Your task to perform on an android device: uninstall "Adobe Acrobat Reader: Edit PDF" Image 0: 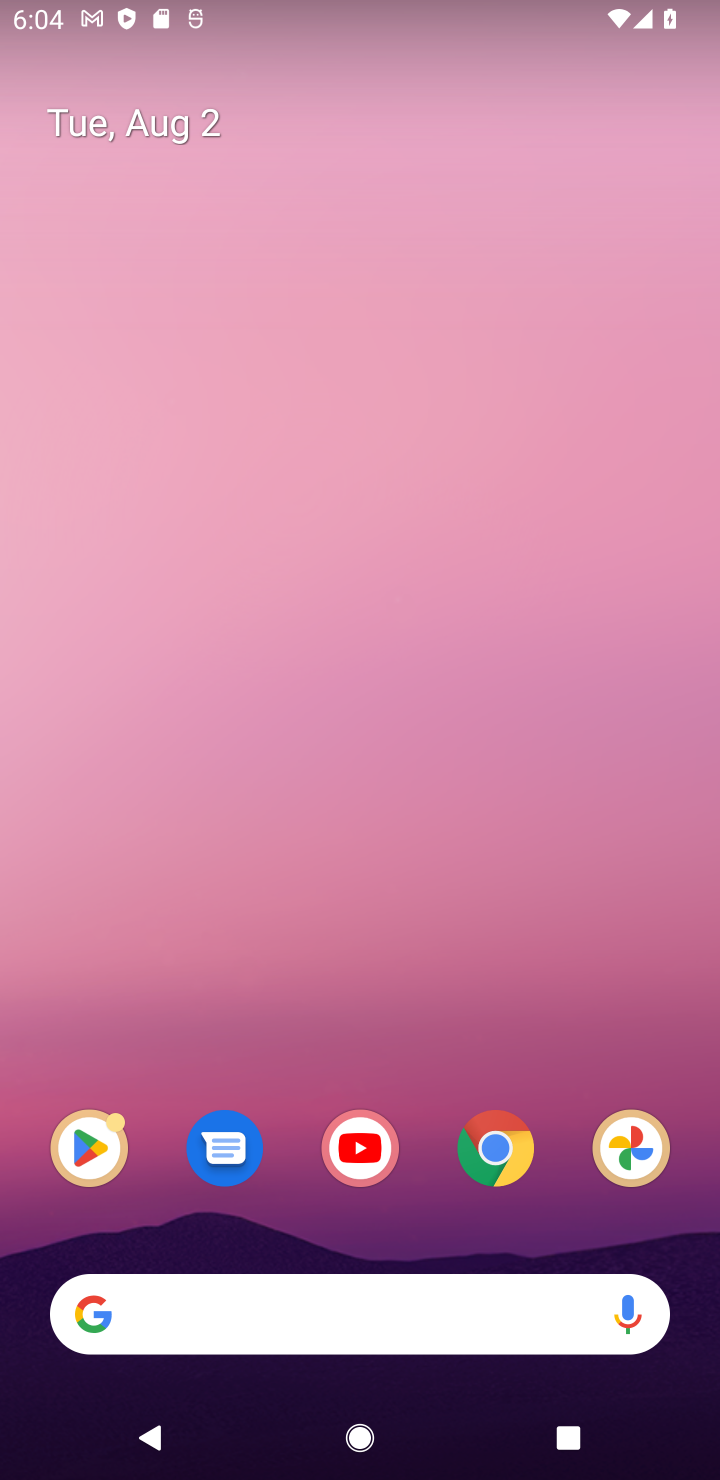
Step 0: drag from (518, 906) to (313, 29)
Your task to perform on an android device: uninstall "Adobe Acrobat Reader: Edit PDF" Image 1: 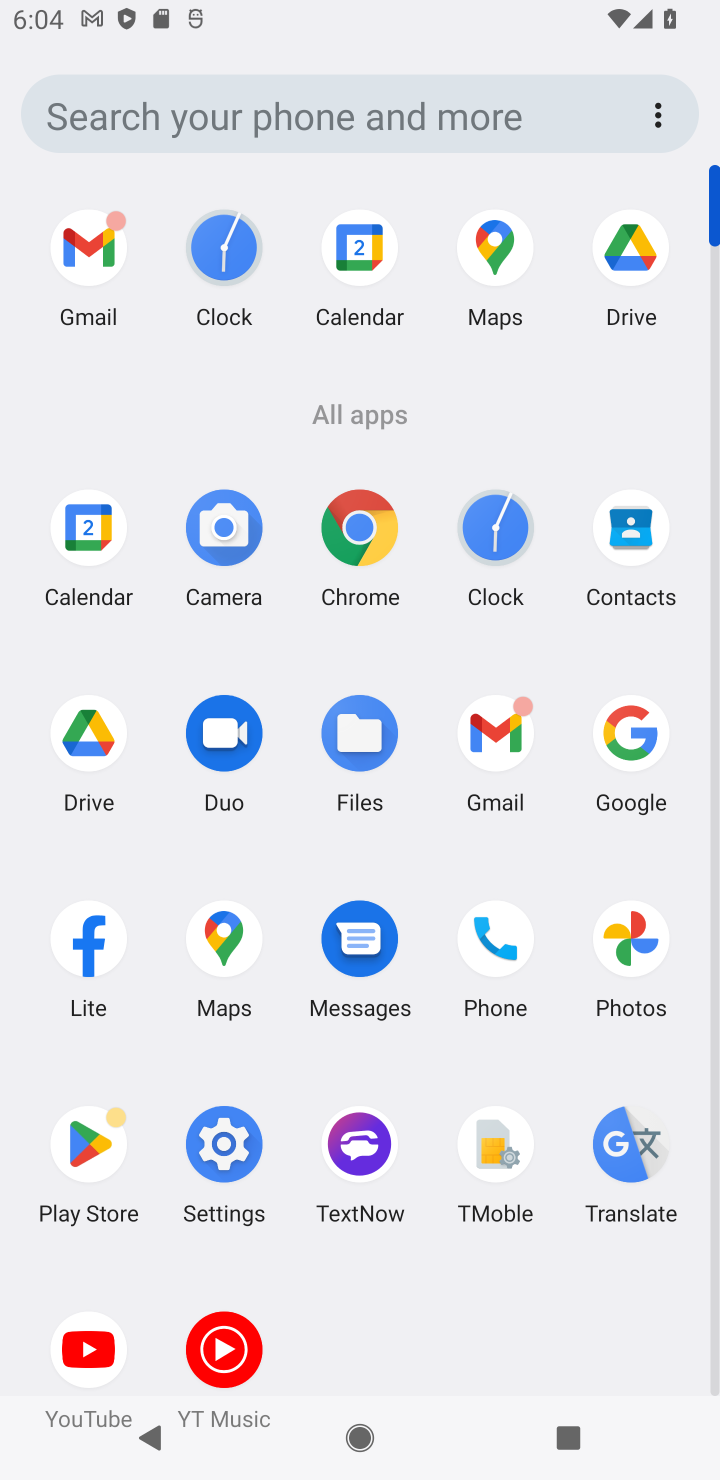
Step 1: click (92, 1163)
Your task to perform on an android device: uninstall "Adobe Acrobat Reader: Edit PDF" Image 2: 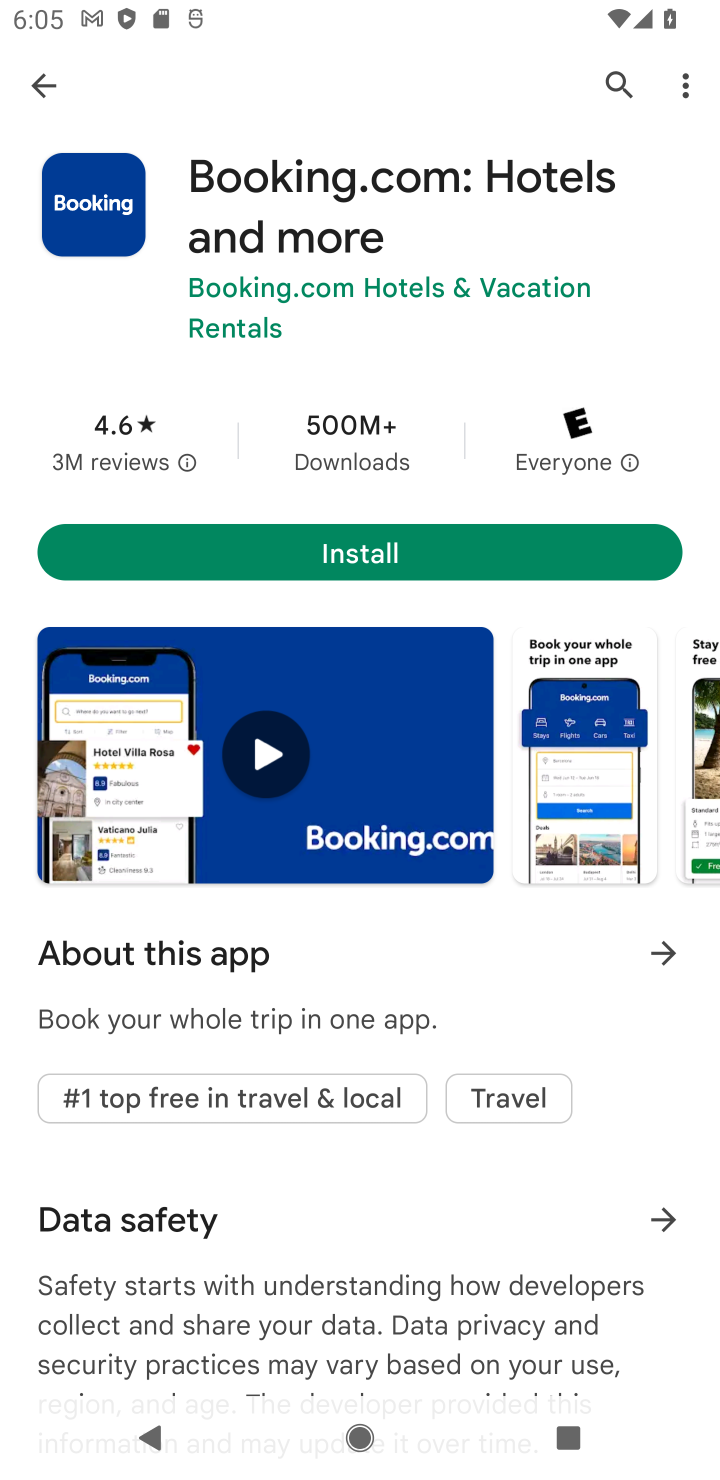
Step 2: press back button
Your task to perform on an android device: uninstall "Adobe Acrobat Reader: Edit PDF" Image 3: 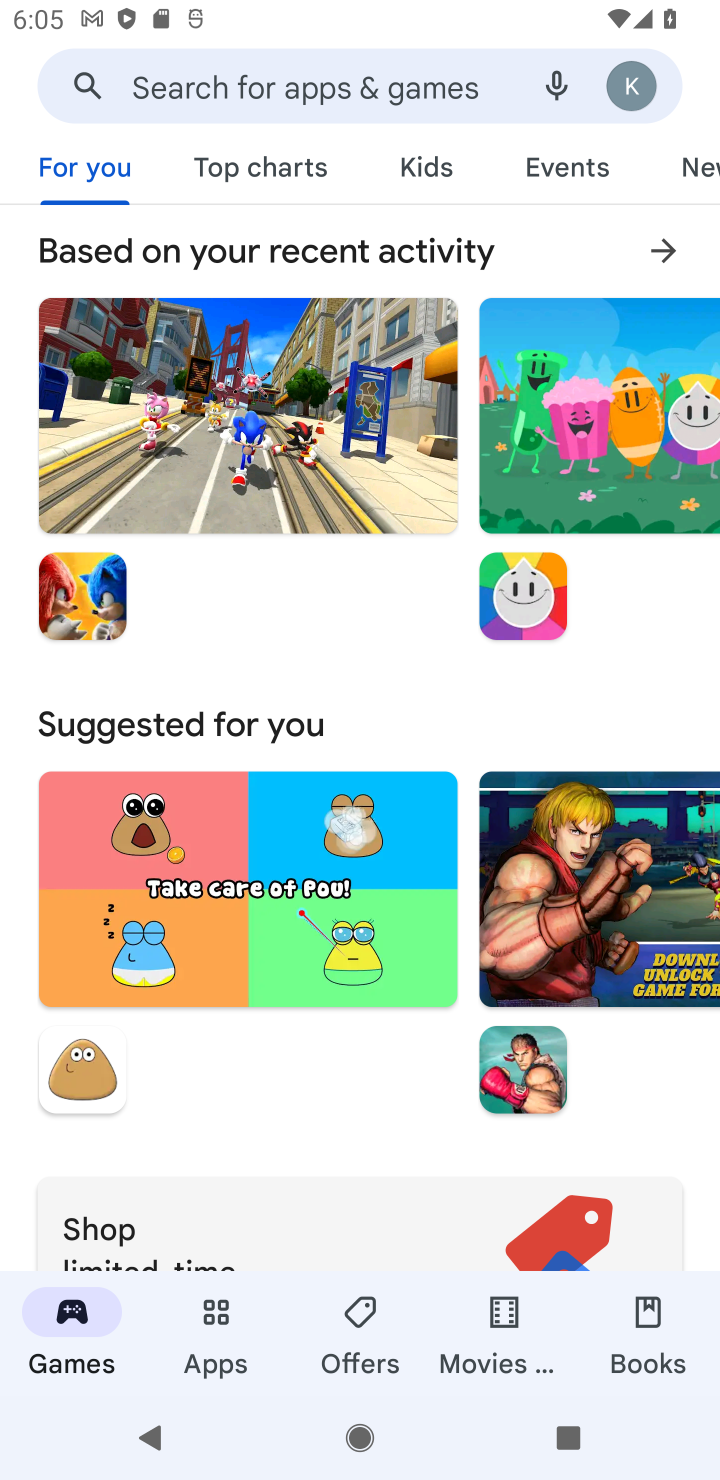
Step 3: click (188, 97)
Your task to perform on an android device: uninstall "Adobe Acrobat Reader: Edit PDF" Image 4: 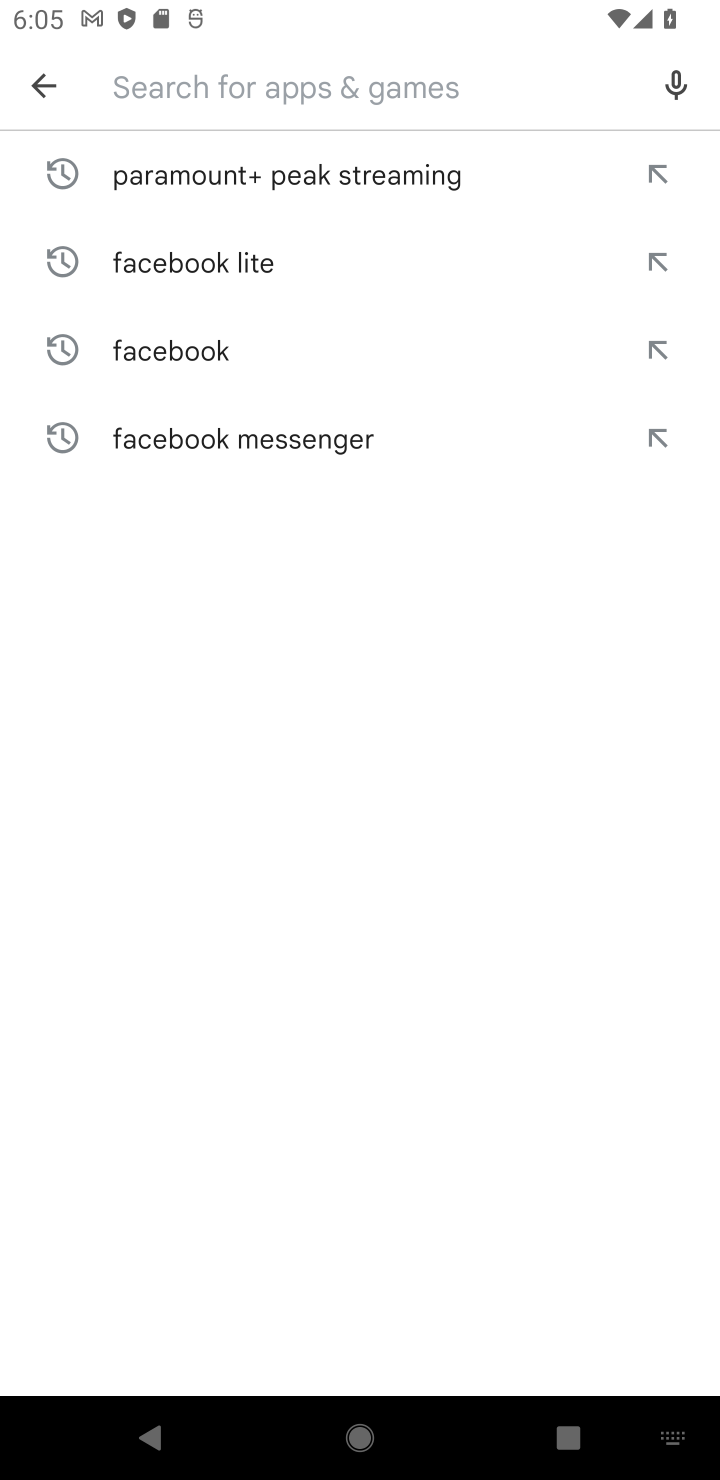
Step 4: type "Adobe Acrobat Reader: Edit PDF"
Your task to perform on an android device: uninstall "Adobe Acrobat Reader: Edit PDF" Image 5: 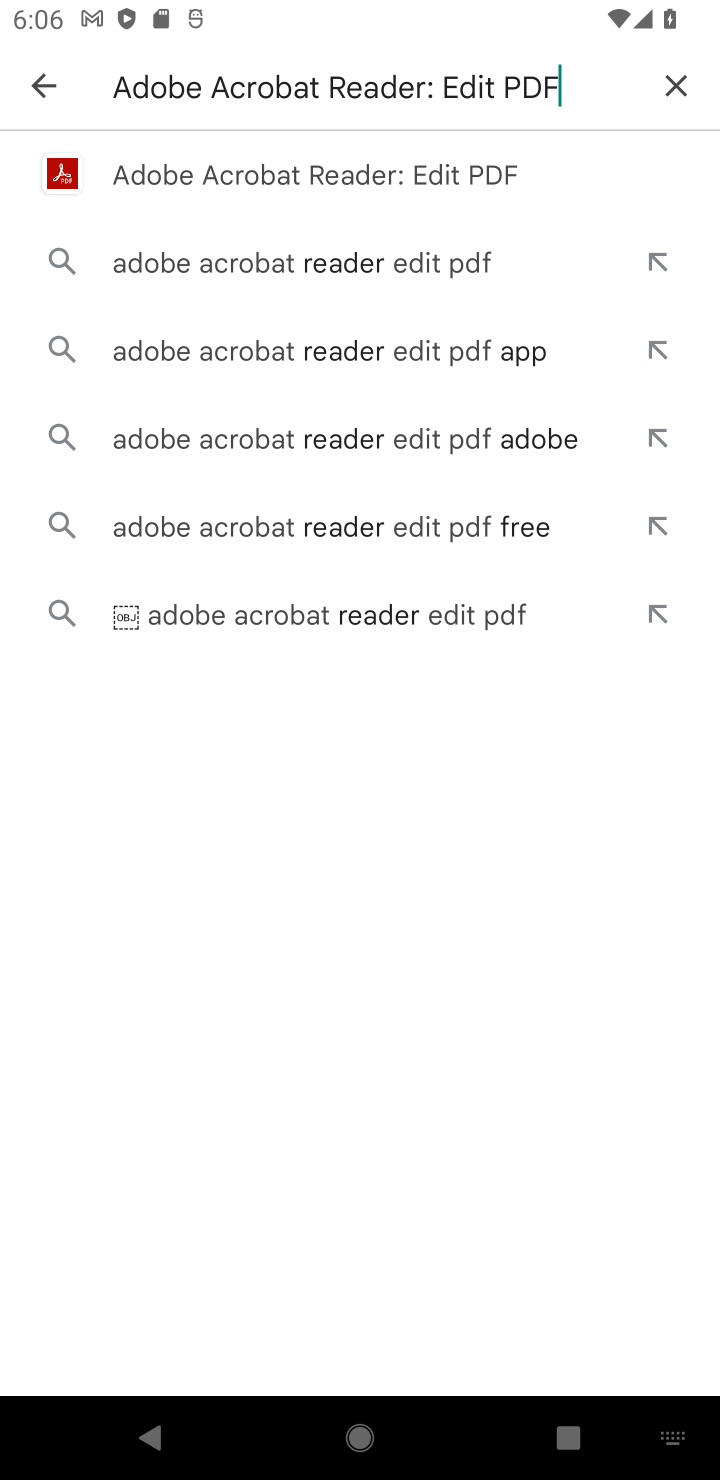
Step 5: click (227, 181)
Your task to perform on an android device: uninstall "Adobe Acrobat Reader: Edit PDF" Image 6: 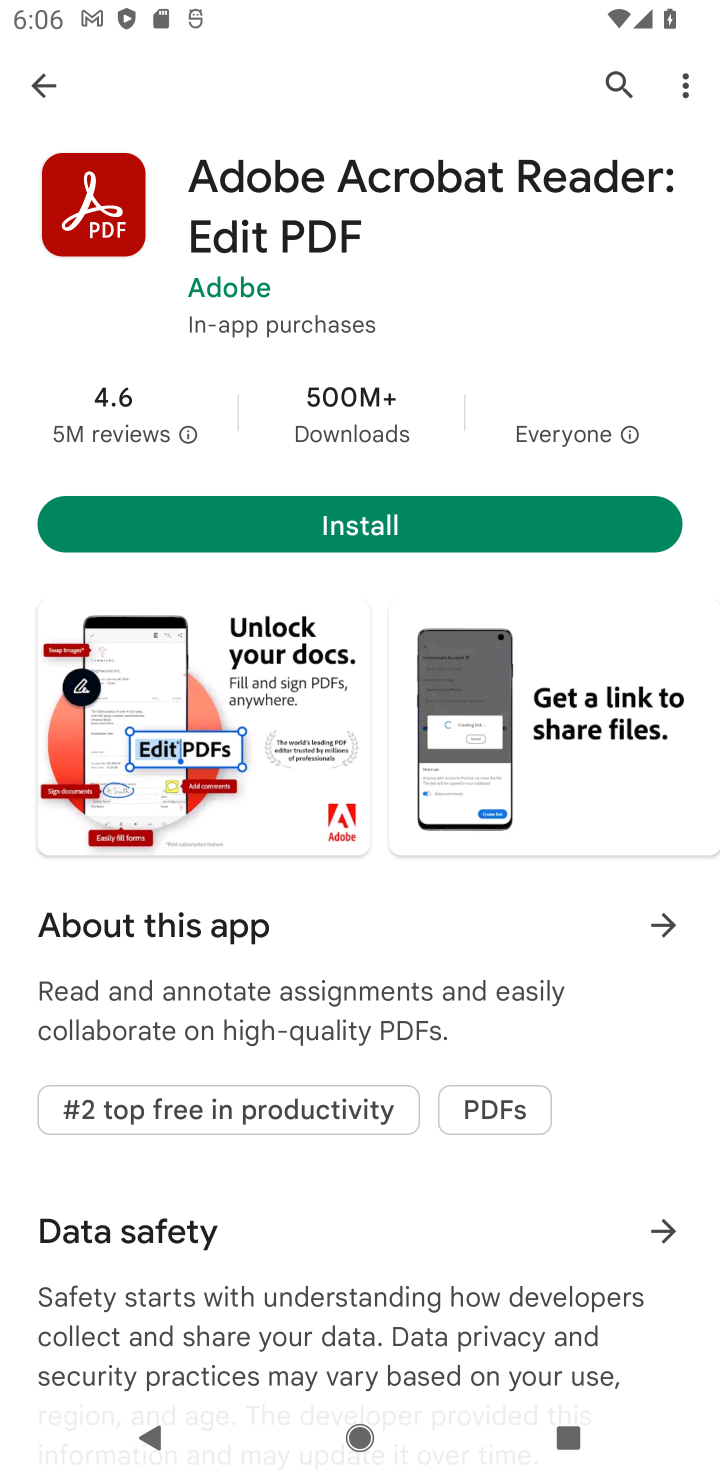
Step 6: task complete